Your task to perform on an android device: Open calendar and show me the first week of next month Image 0: 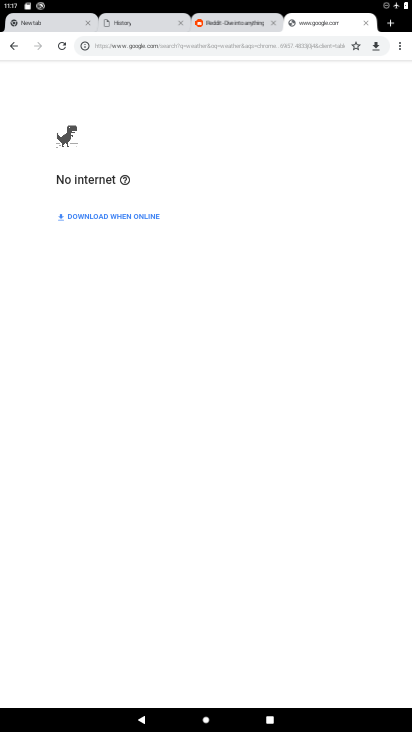
Step 0: press home button
Your task to perform on an android device: Open calendar and show me the first week of next month Image 1: 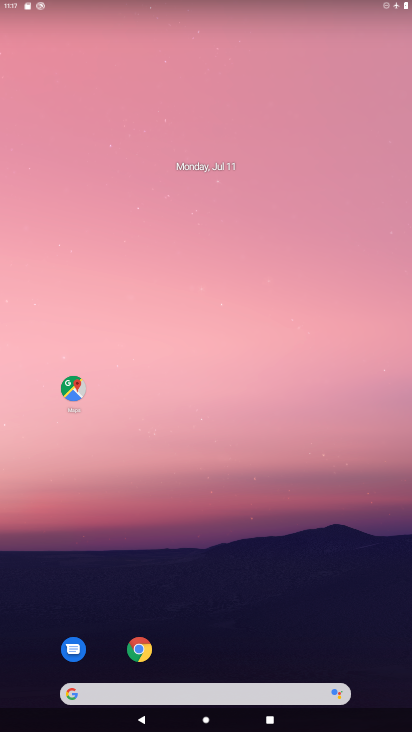
Step 1: drag from (277, 573) to (222, 154)
Your task to perform on an android device: Open calendar and show me the first week of next month Image 2: 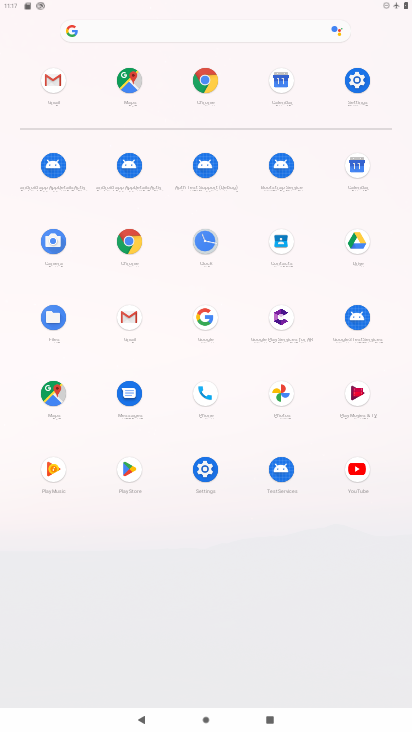
Step 2: click (355, 168)
Your task to perform on an android device: Open calendar and show me the first week of next month Image 3: 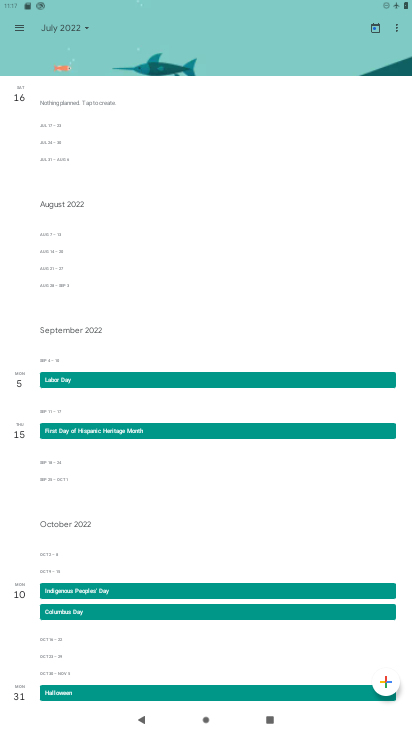
Step 3: click (68, 31)
Your task to perform on an android device: Open calendar and show me the first week of next month Image 4: 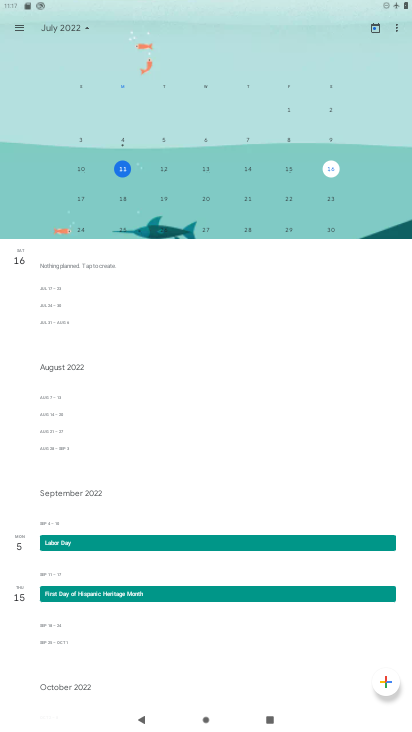
Step 4: drag from (312, 170) to (18, 166)
Your task to perform on an android device: Open calendar and show me the first week of next month Image 5: 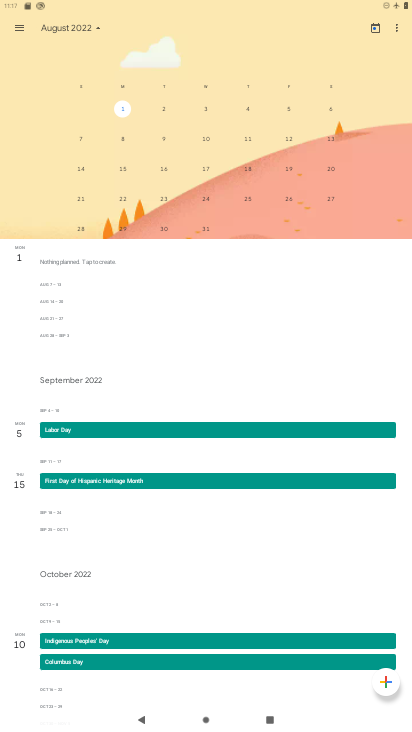
Step 5: click (159, 108)
Your task to perform on an android device: Open calendar and show me the first week of next month Image 6: 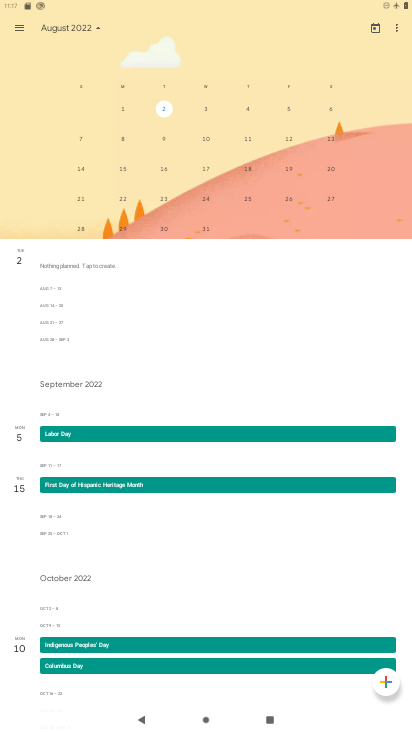
Step 6: click (14, 25)
Your task to perform on an android device: Open calendar and show me the first week of next month Image 7: 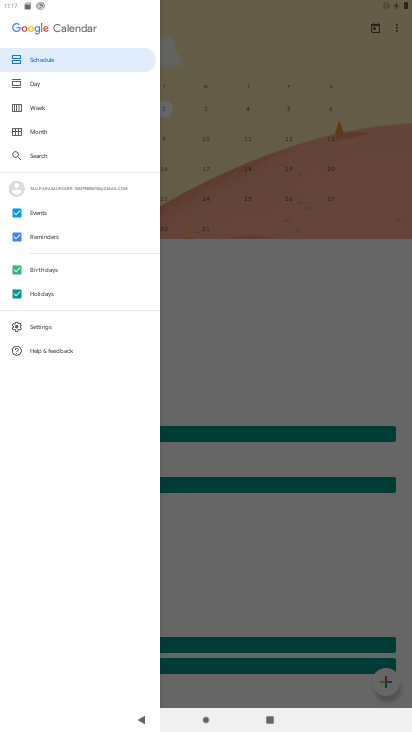
Step 7: click (40, 107)
Your task to perform on an android device: Open calendar and show me the first week of next month Image 8: 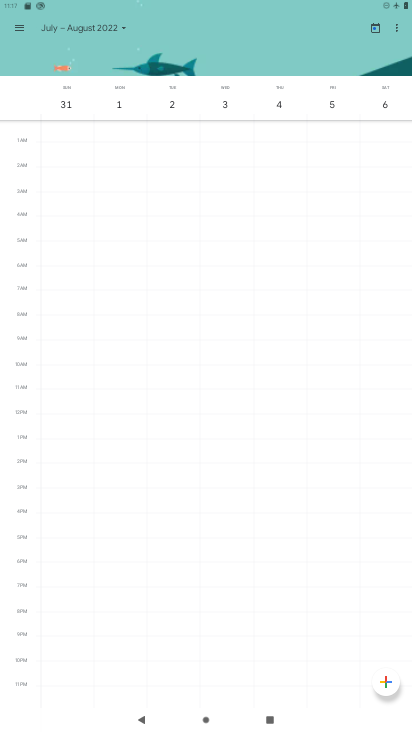
Step 8: task complete